Your task to perform on an android device: open a bookmark in the chrome app Image 0: 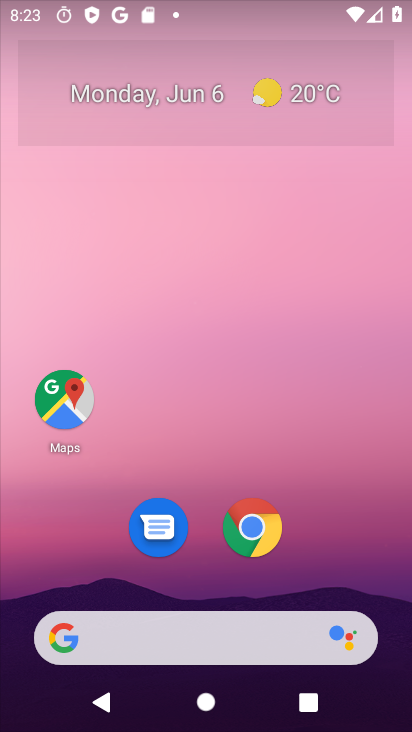
Step 0: click (261, 525)
Your task to perform on an android device: open a bookmark in the chrome app Image 1: 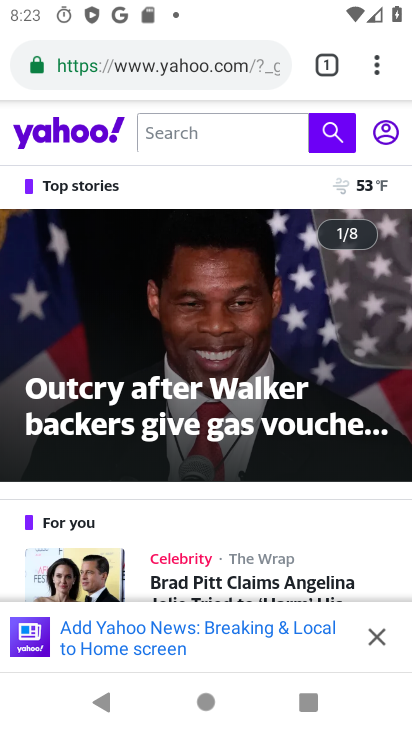
Step 1: click (375, 73)
Your task to perform on an android device: open a bookmark in the chrome app Image 2: 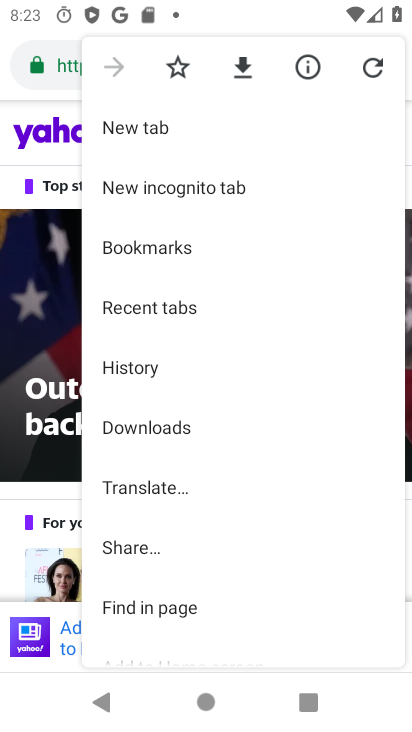
Step 2: click (159, 249)
Your task to perform on an android device: open a bookmark in the chrome app Image 3: 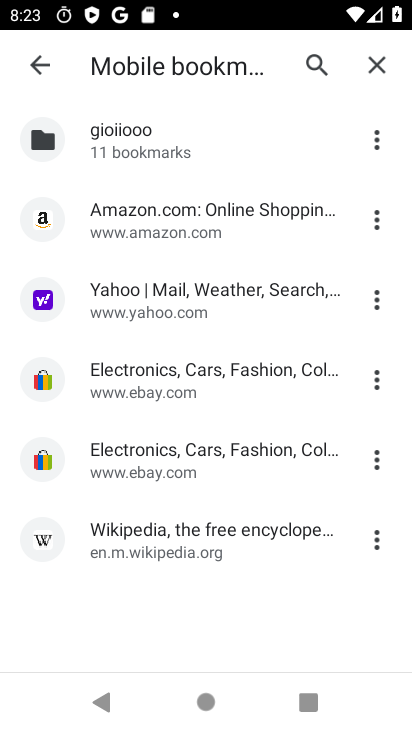
Step 3: click (140, 216)
Your task to perform on an android device: open a bookmark in the chrome app Image 4: 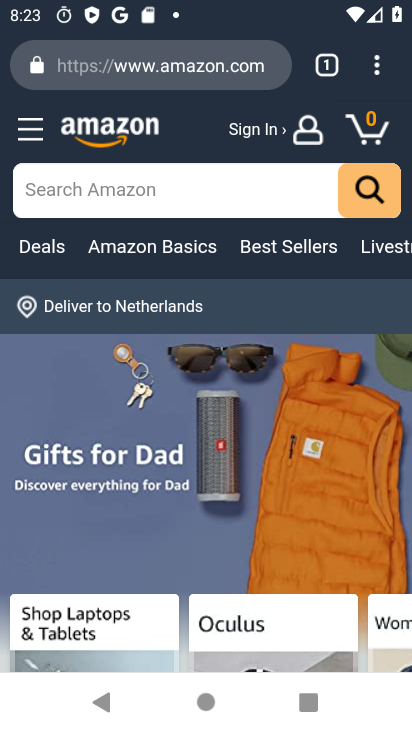
Step 4: task complete